Your task to perform on an android device: turn off location history Image 0: 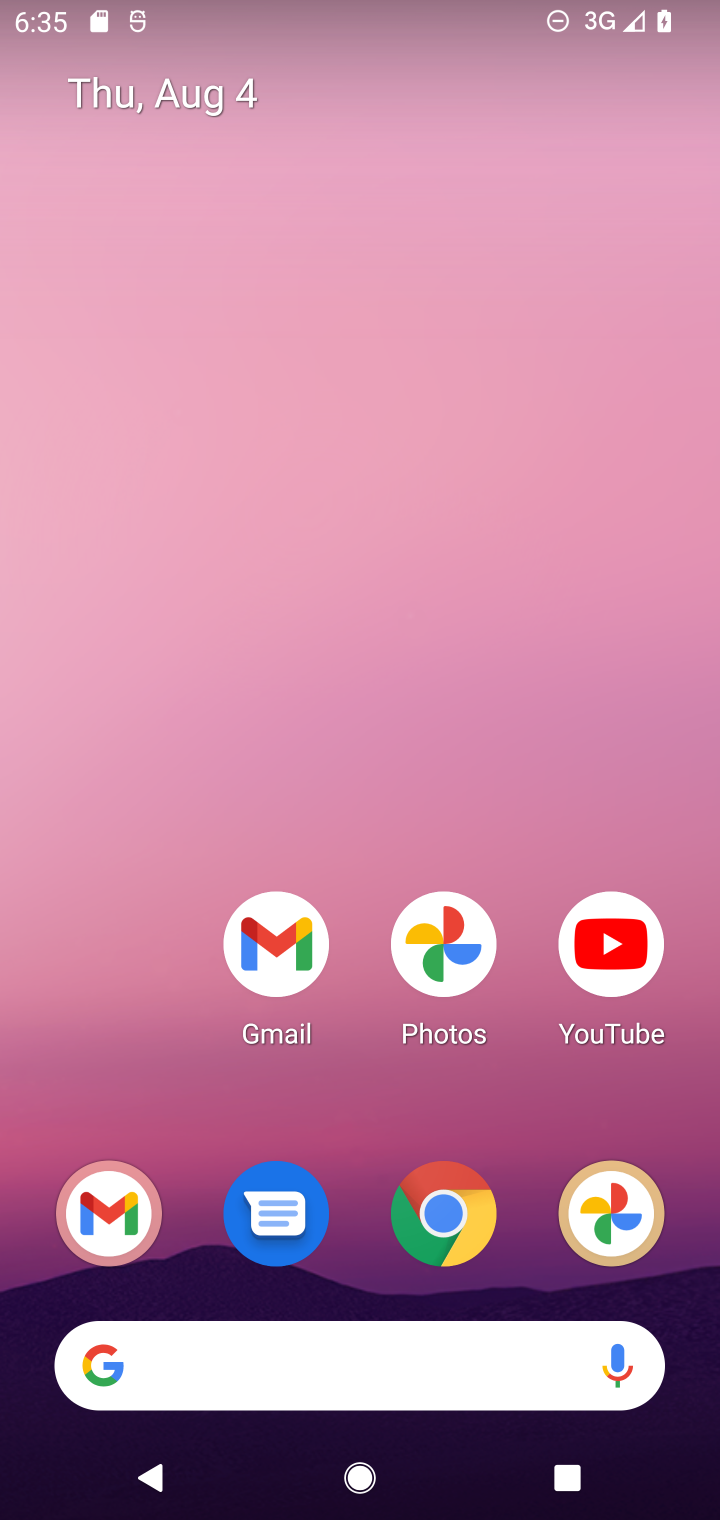
Step 0: press home button
Your task to perform on an android device: turn off location history Image 1: 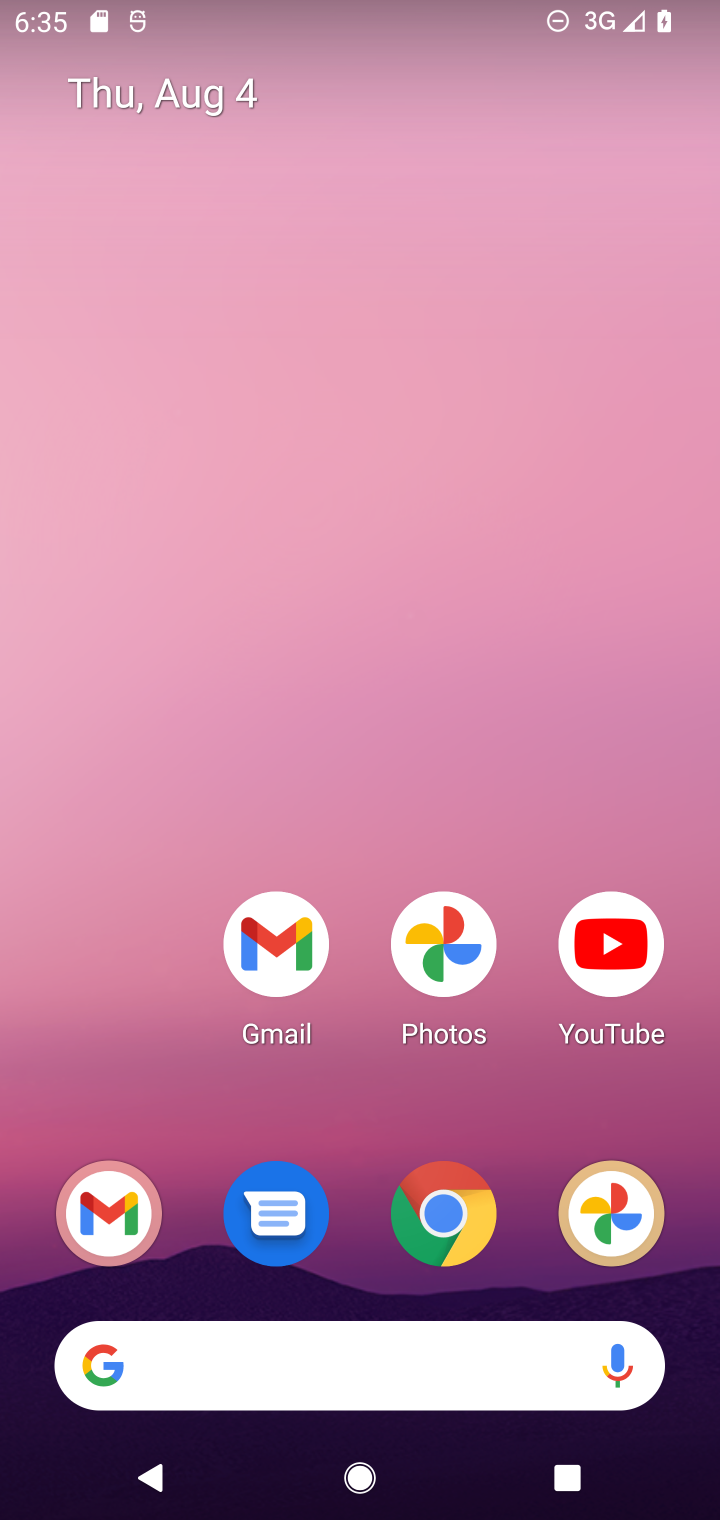
Step 1: drag from (171, 1123) to (123, 286)
Your task to perform on an android device: turn off location history Image 2: 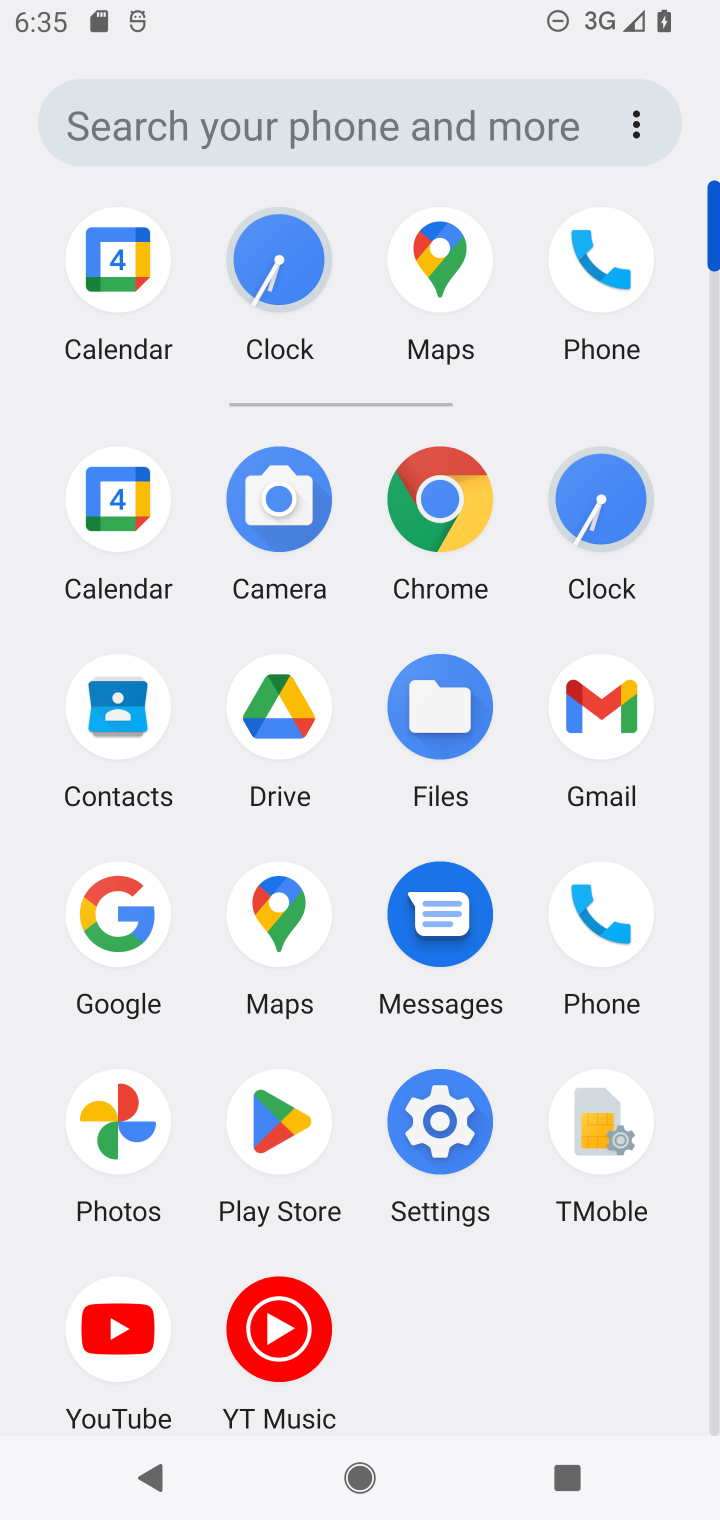
Step 2: click (441, 1125)
Your task to perform on an android device: turn off location history Image 3: 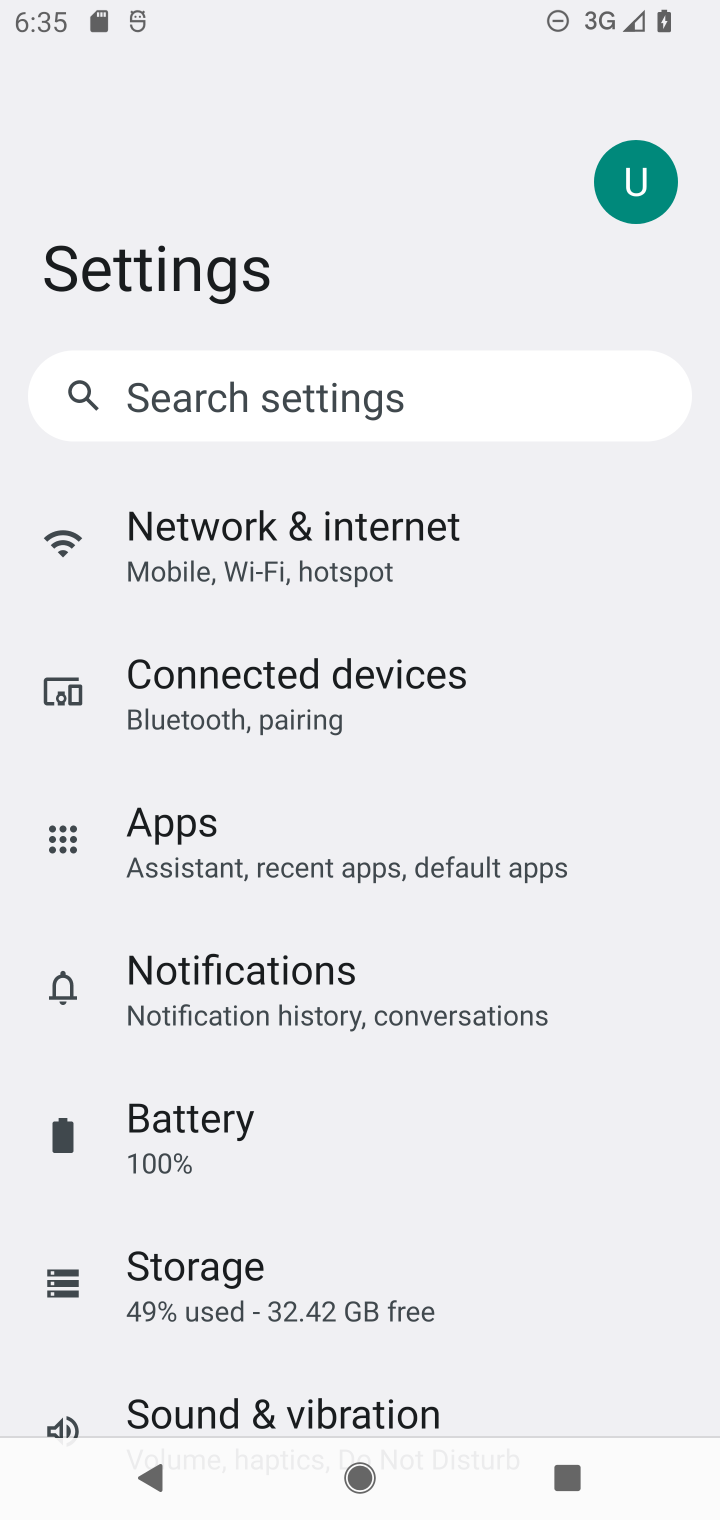
Step 3: drag from (591, 1201) to (605, 895)
Your task to perform on an android device: turn off location history Image 4: 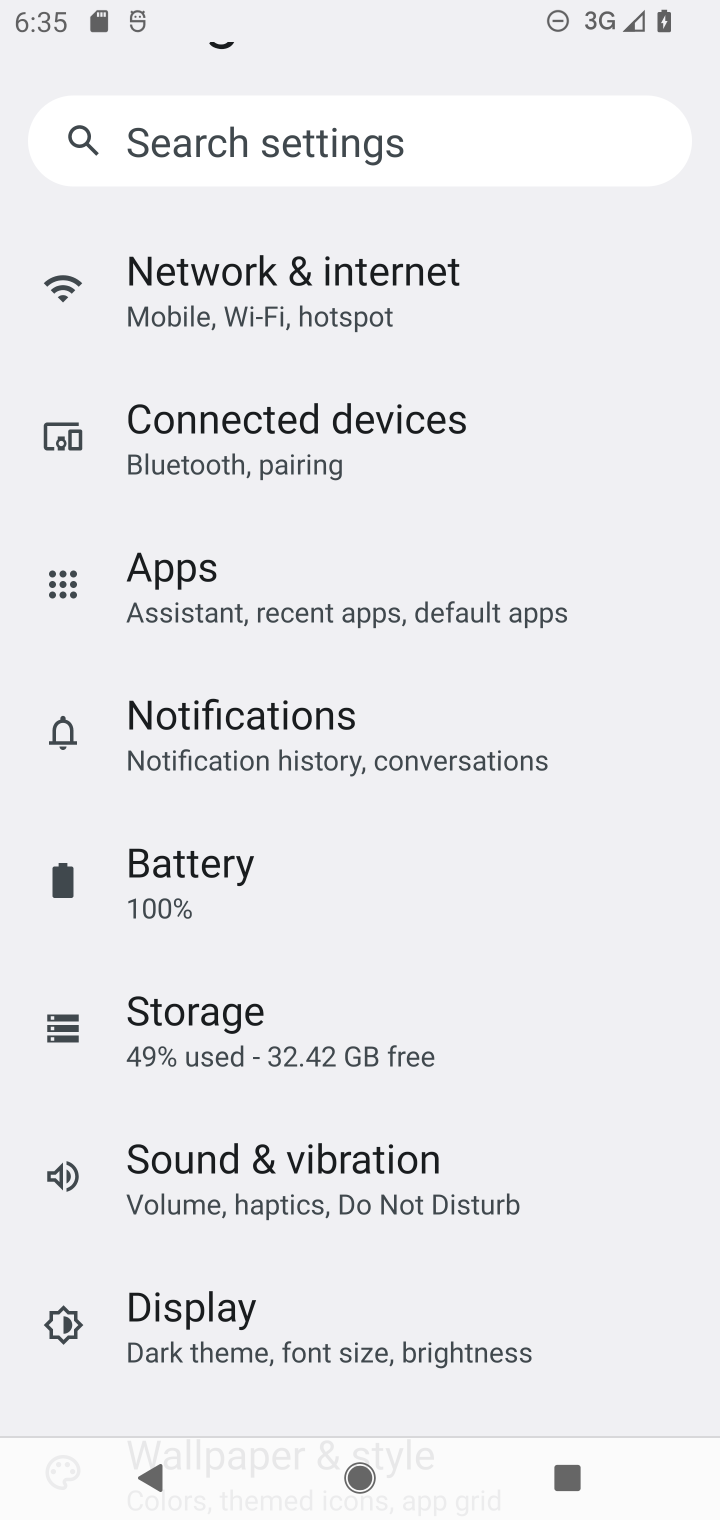
Step 4: drag from (596, 1247) to (594, 846)
Your task to perform on an android device: turn off location history Image 5: 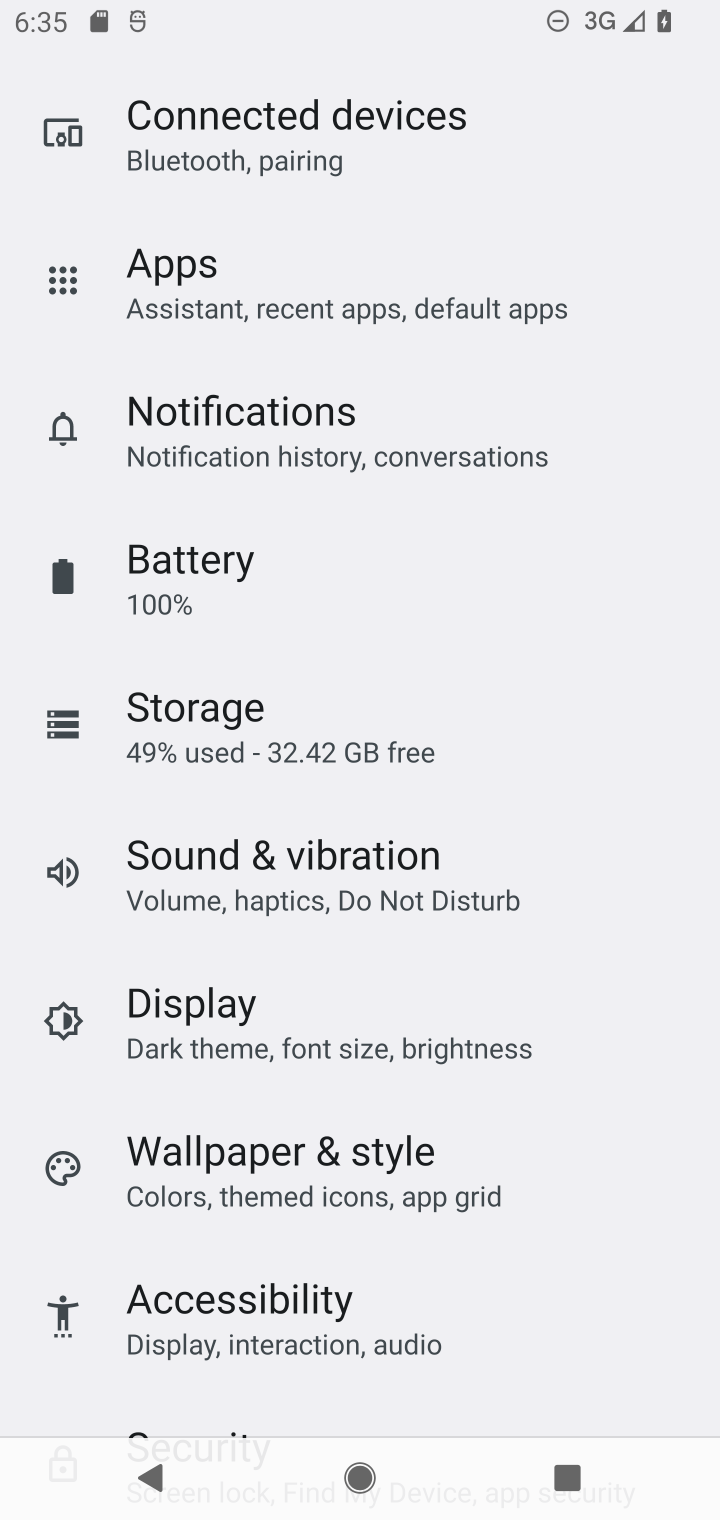
Step 5: drag from (610, 1316) to (604, 908)
Your task to perform on an android device: turn off location history Image 6: 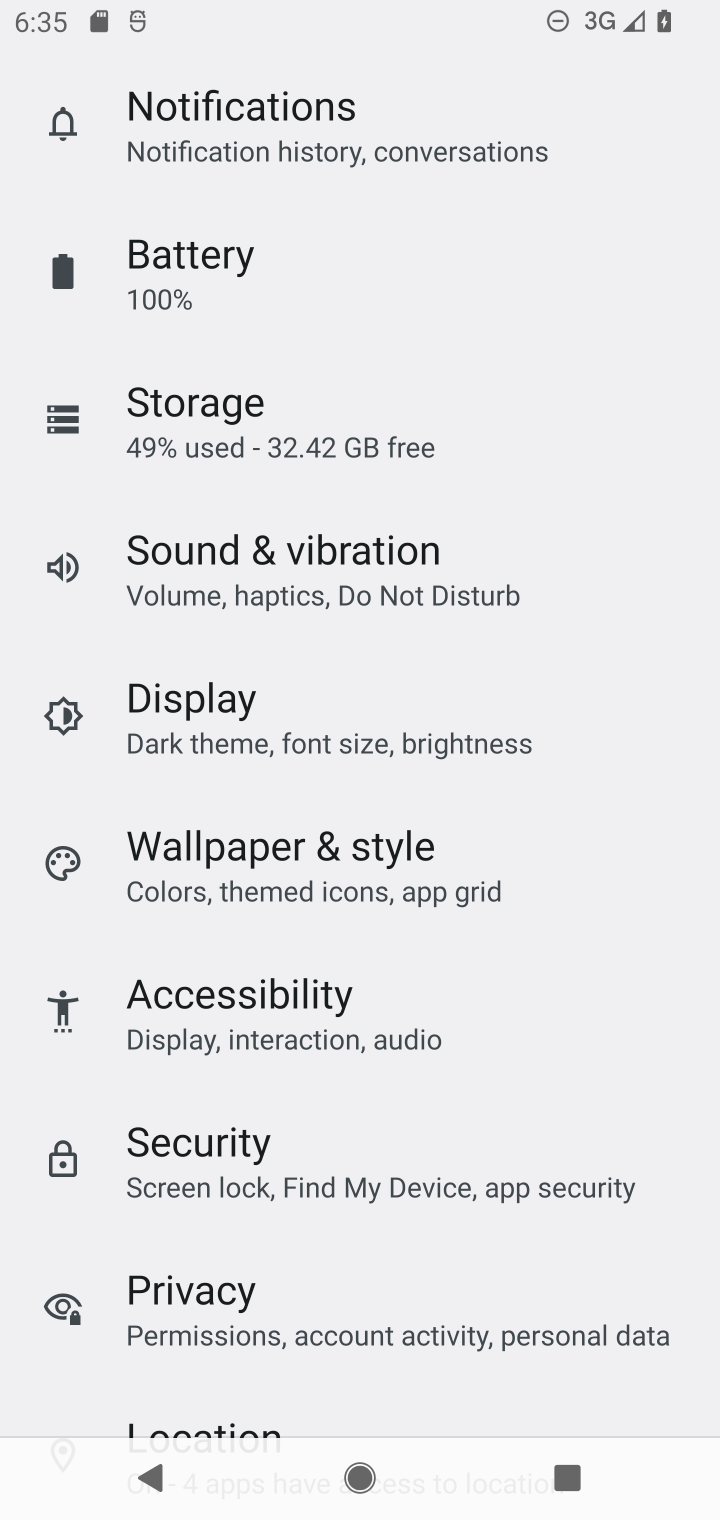
Step 6: drag from (575, 1288) to (577, 949)
Your task to perform on an android device: turn off location history Image 7: 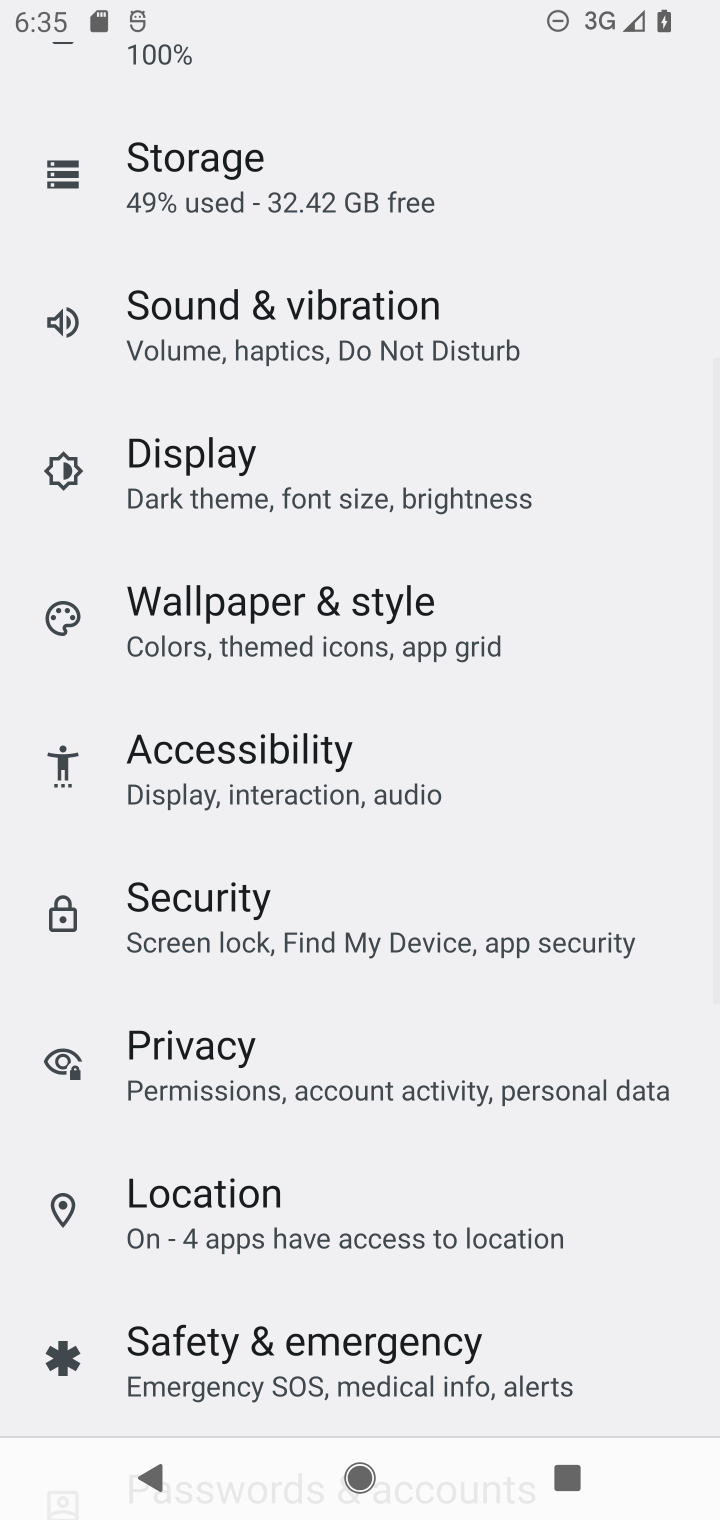
Step 7: drag from (615, 1316) to (613, 968)
Your task to perform on an android device: turn off location history Image 8: 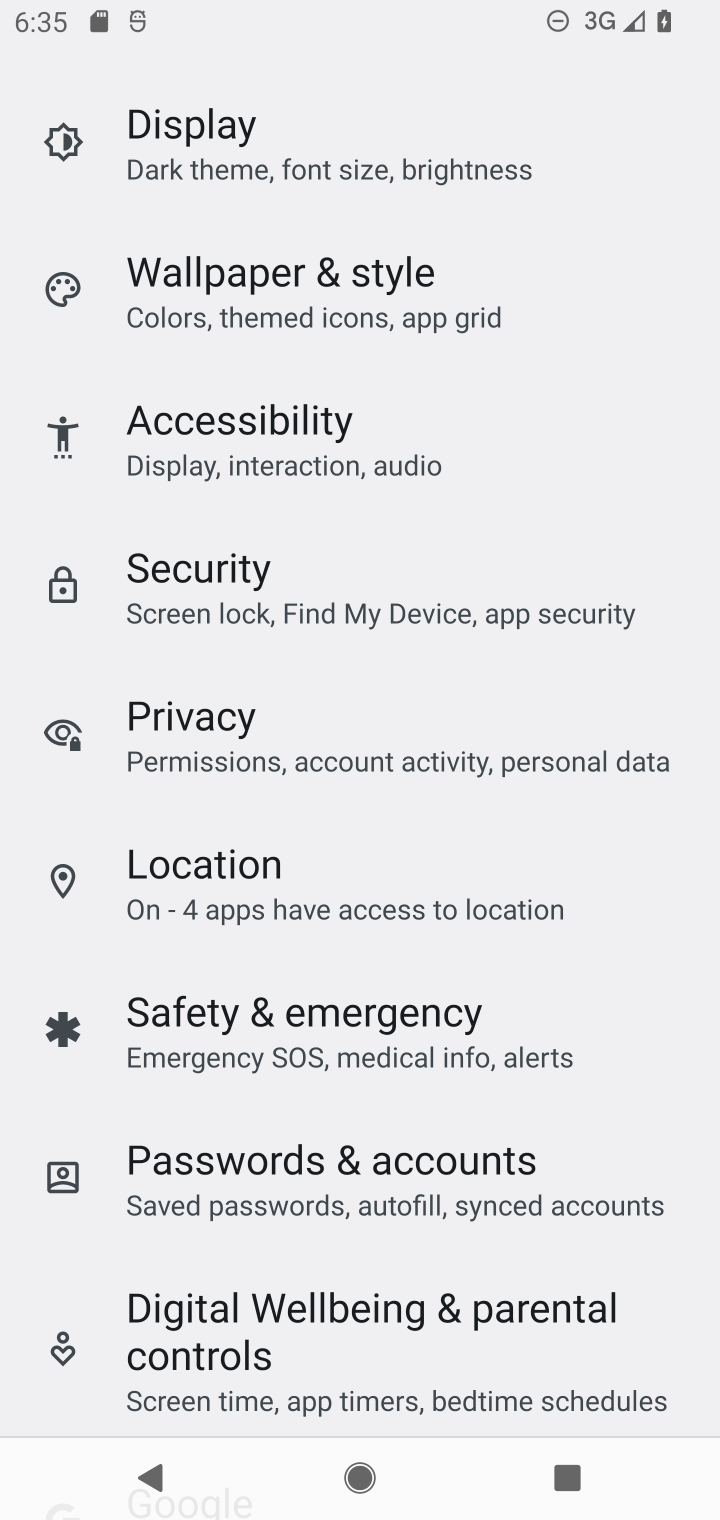
Step 8: drag from (613, 1313) to (598, 936)
Your task to perform on an android device: turn off location history Image 9: 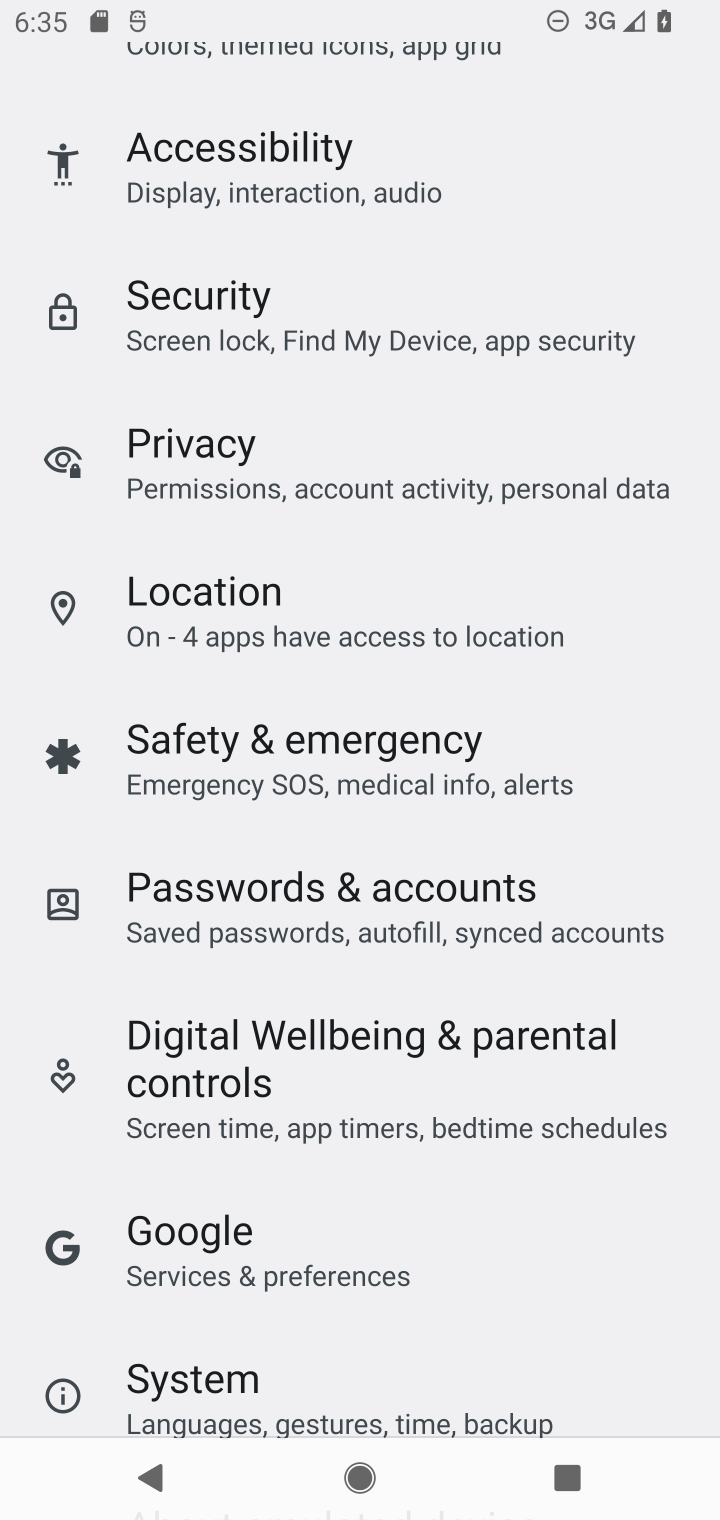
Step 9: drag from (576, 1316) to (574, 802)
Your task to perform on an android device: turn off location history Image 10: 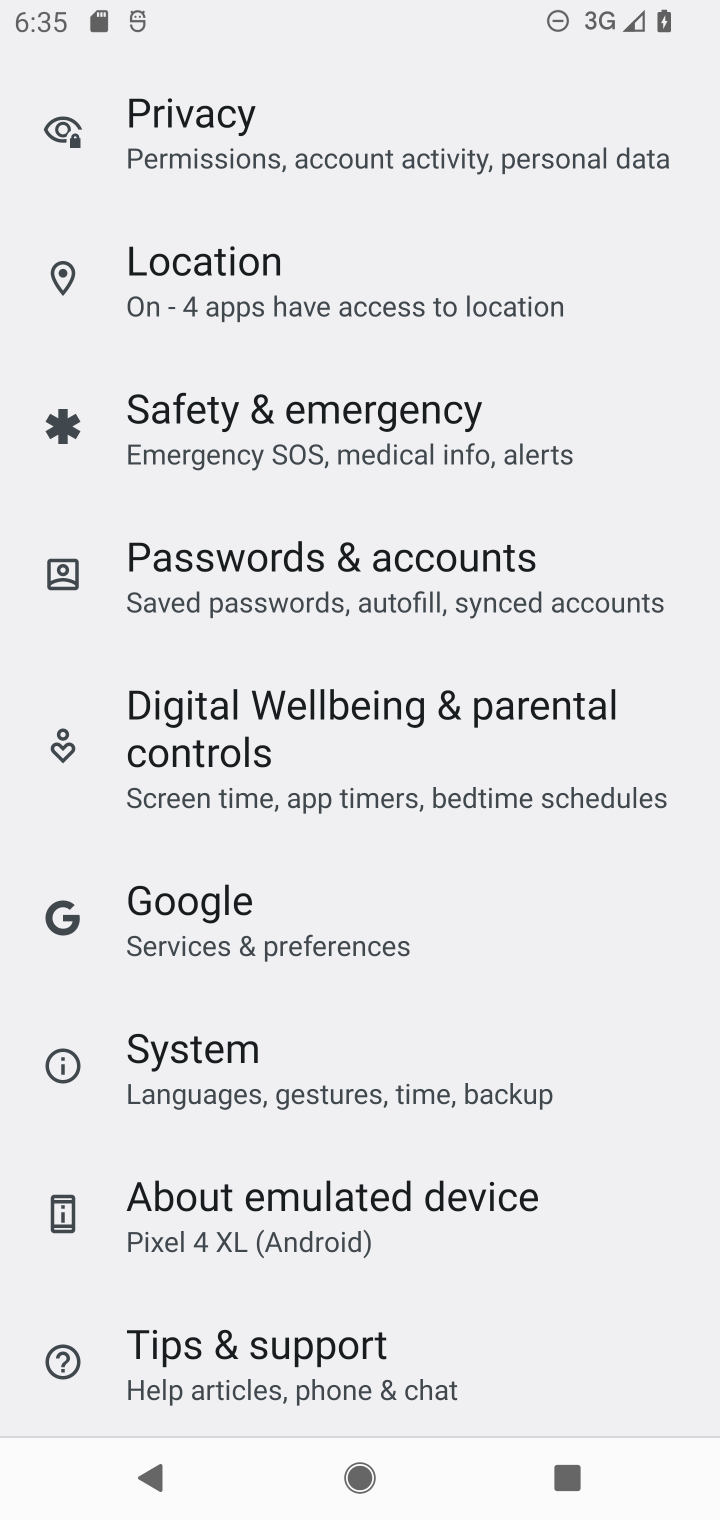
Step 10: drag from (585, 1296) to (560, 878)
Your task to perform on an android device: turn off location history Image 11: 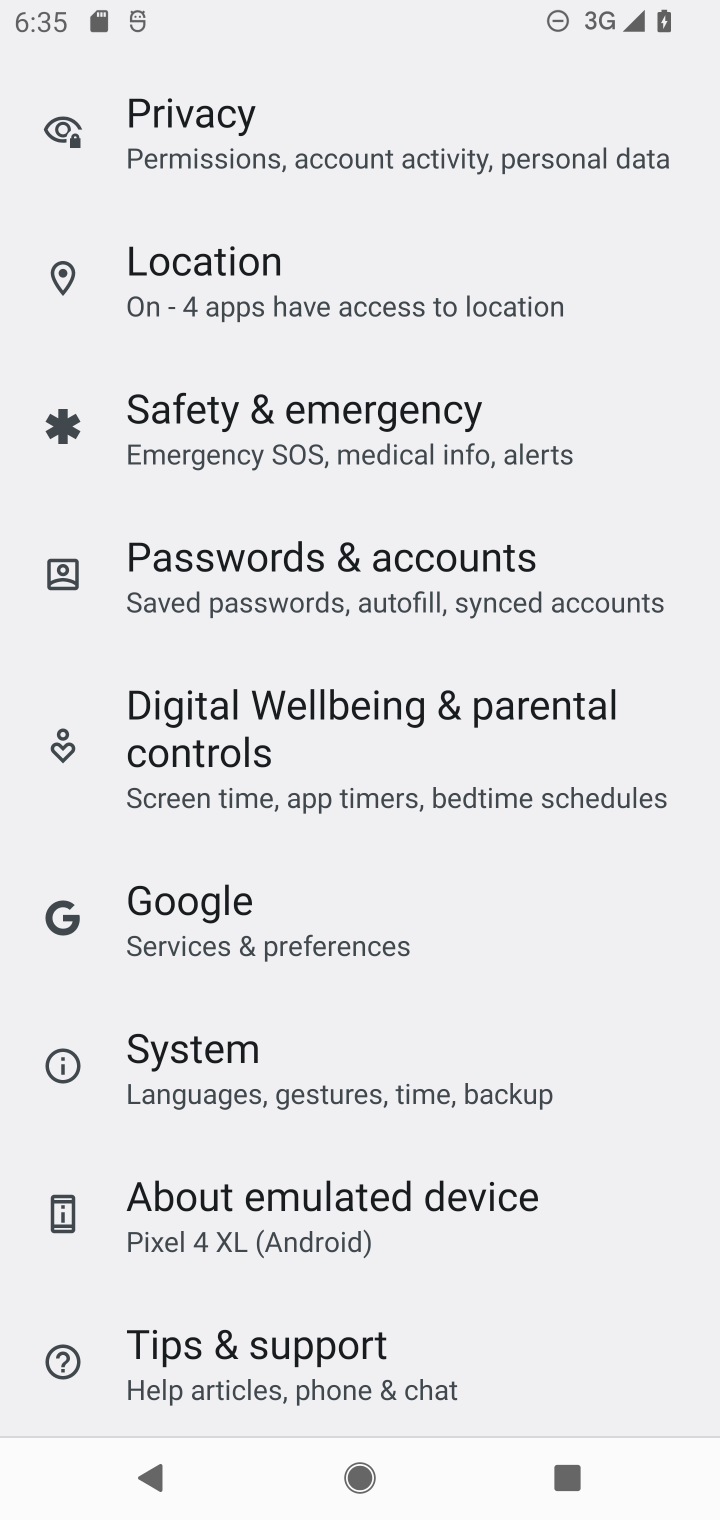
Step 11: drag from (560, 878) to (580, 1133)
Your task to perform on an android device: turn off location history Image 12: 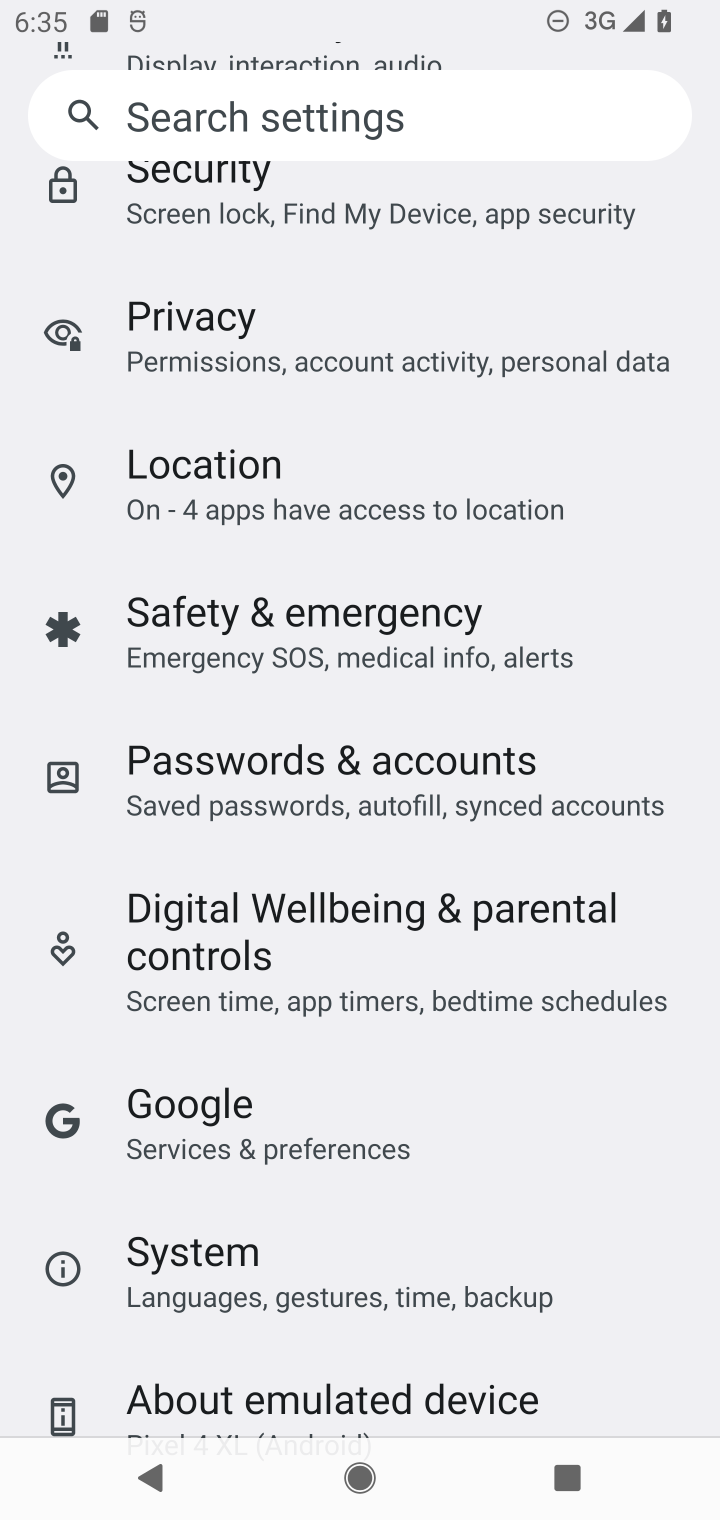
Step 12: drag from (647, 523) to (608, 898)
Your task to perform on an android device: turn off location history Image 13: 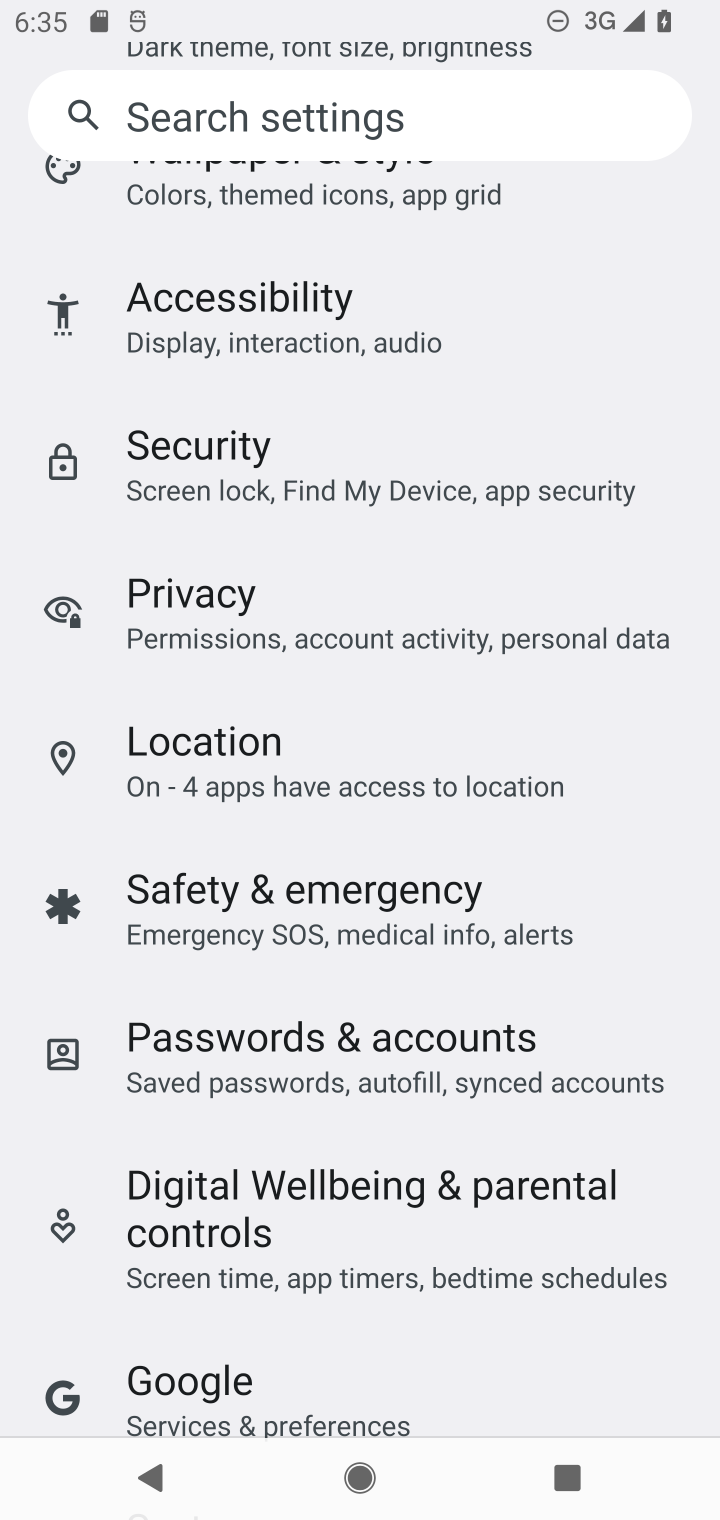
Step 13: click (364, 763)
Your task to perform on an android device: turn off location history Image 14: 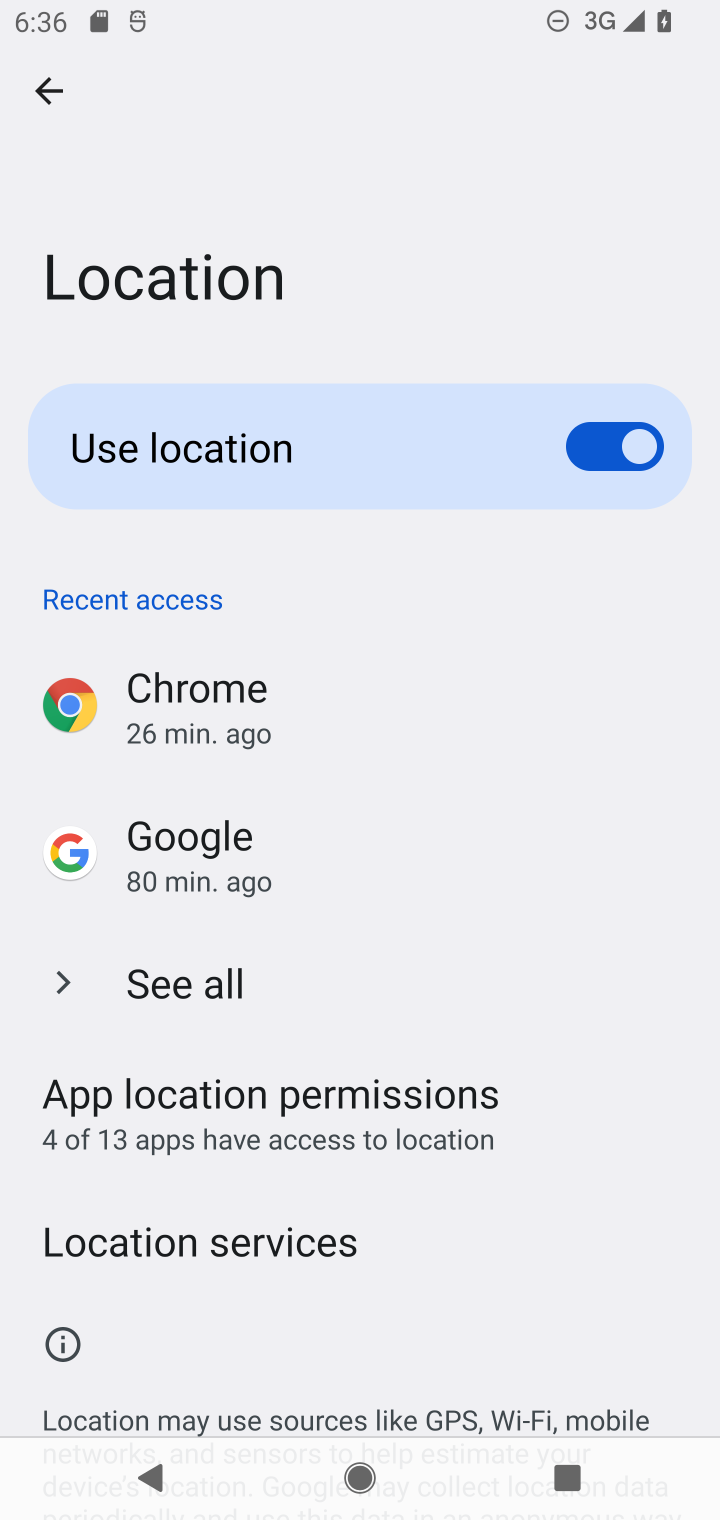
Step 14: drag from (548, 1217) to (555, 883)
Your task to perform on an android device: turn off location history Image 15: 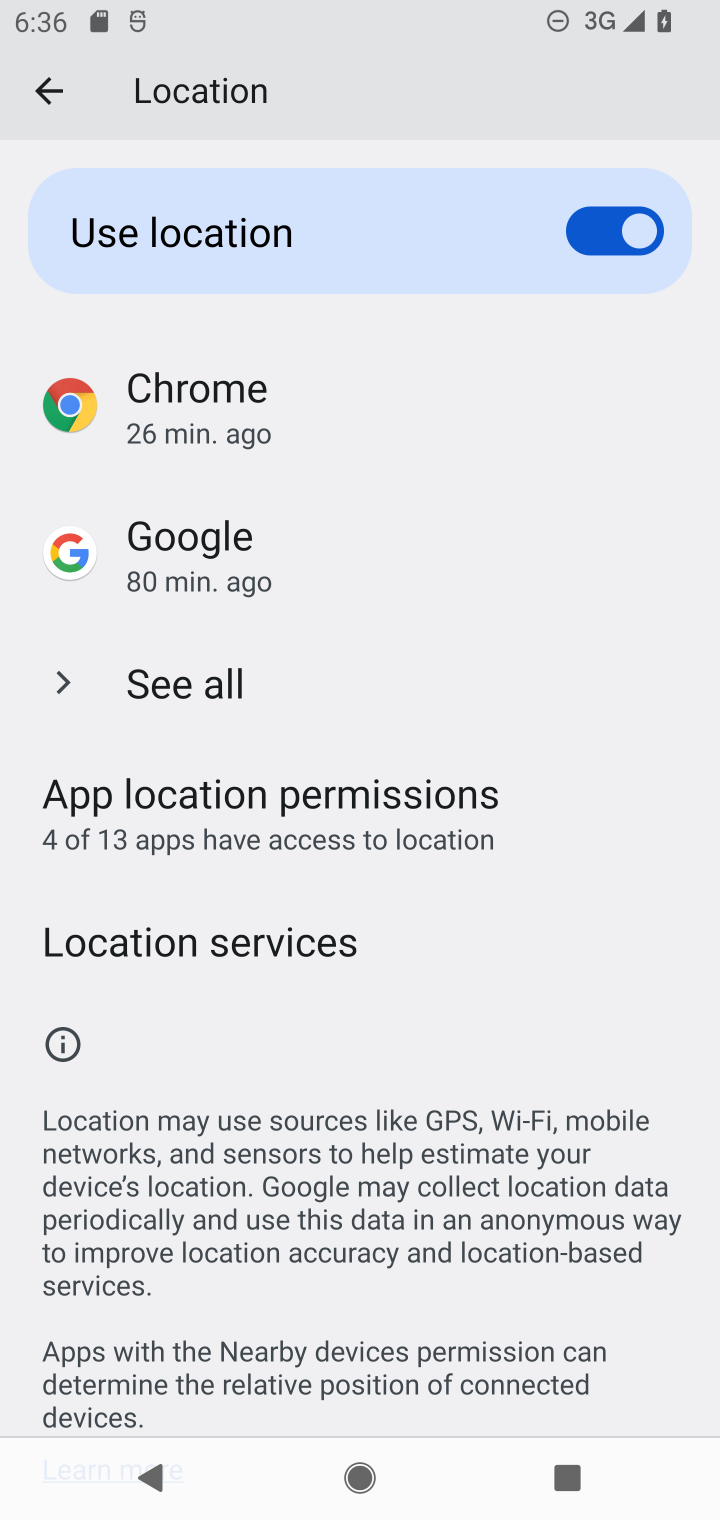
Step 15: click (323, 935)
Your task to perform on an android device: turn off location history Image 16: 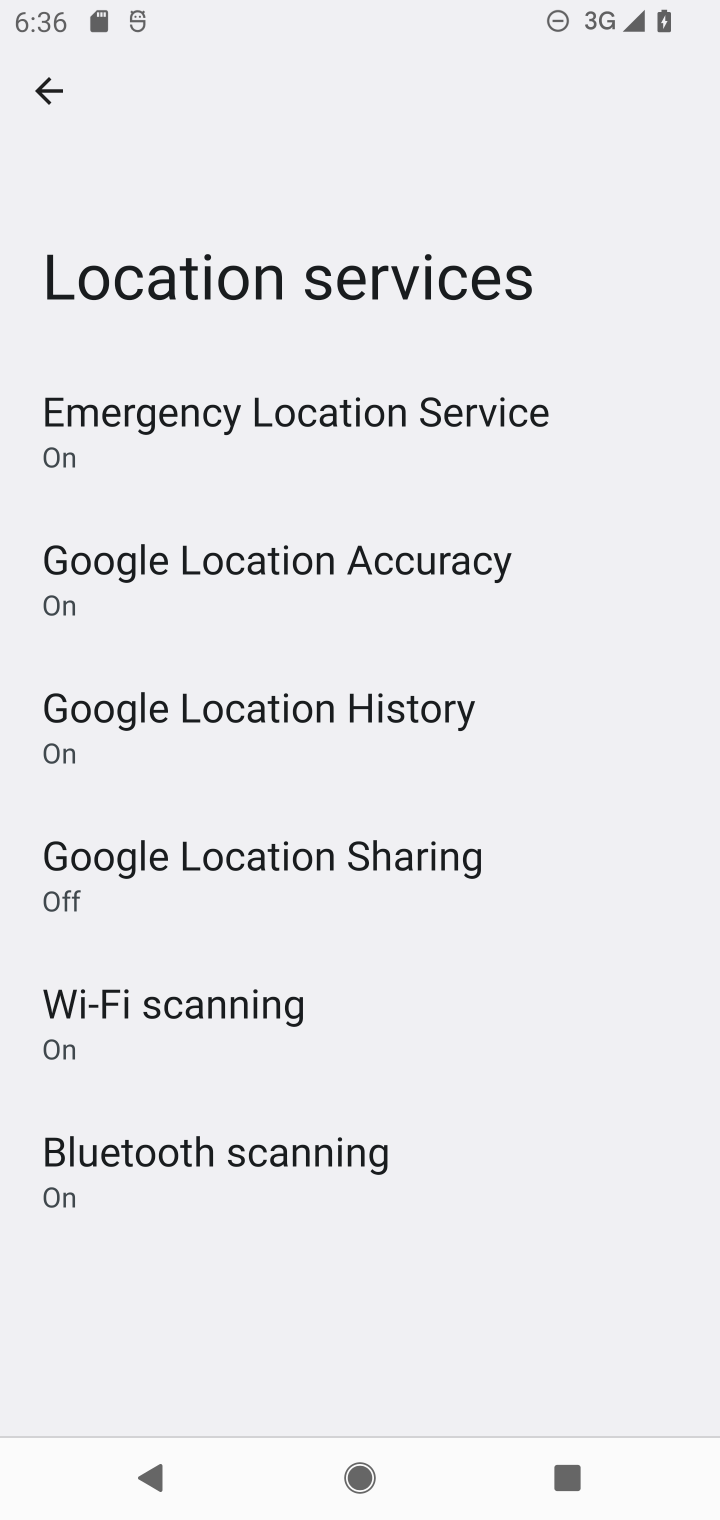
Step 16: click (285, 734)
Your task to perform on an android device: turn off location history Image 17: 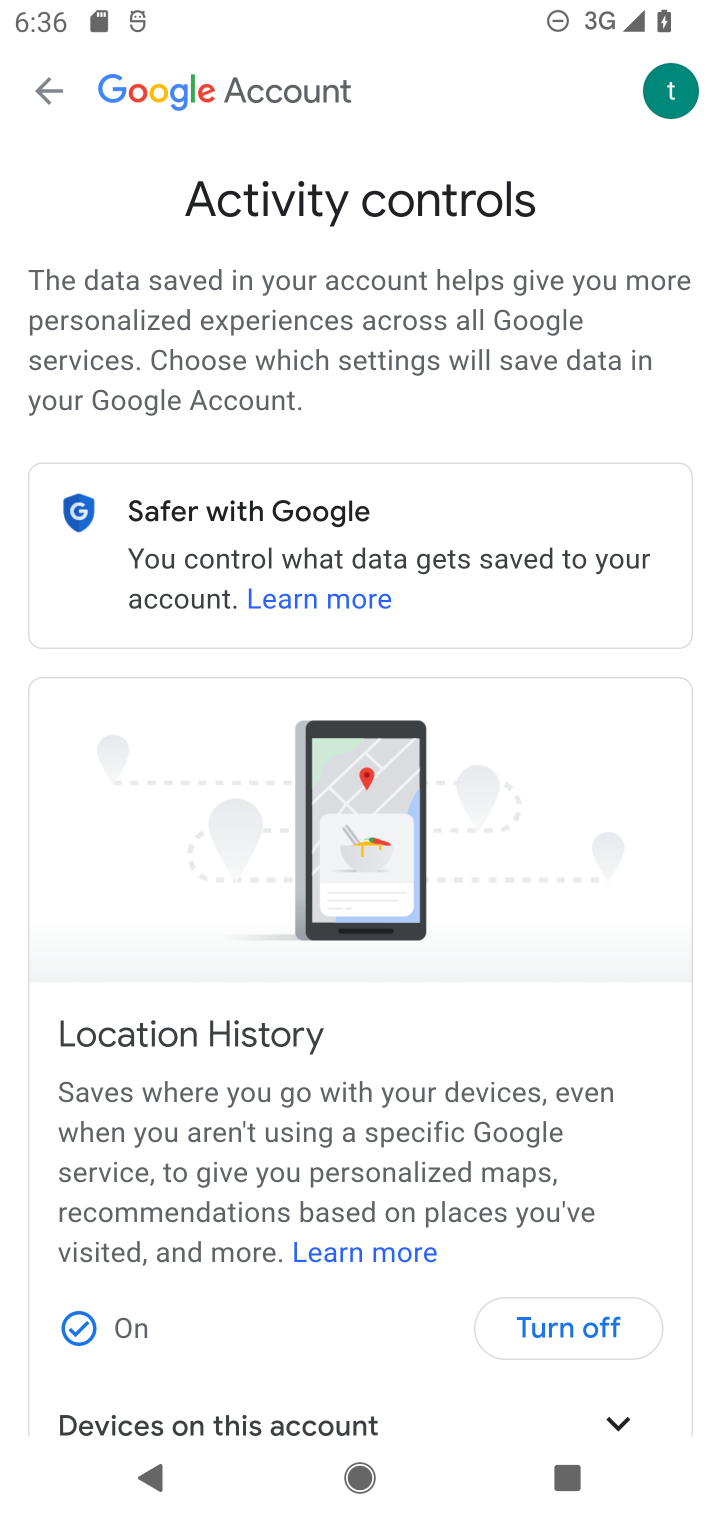
Step 17: click (578, 1308)
Your task to perform on an android device: turn off location history Image 18: 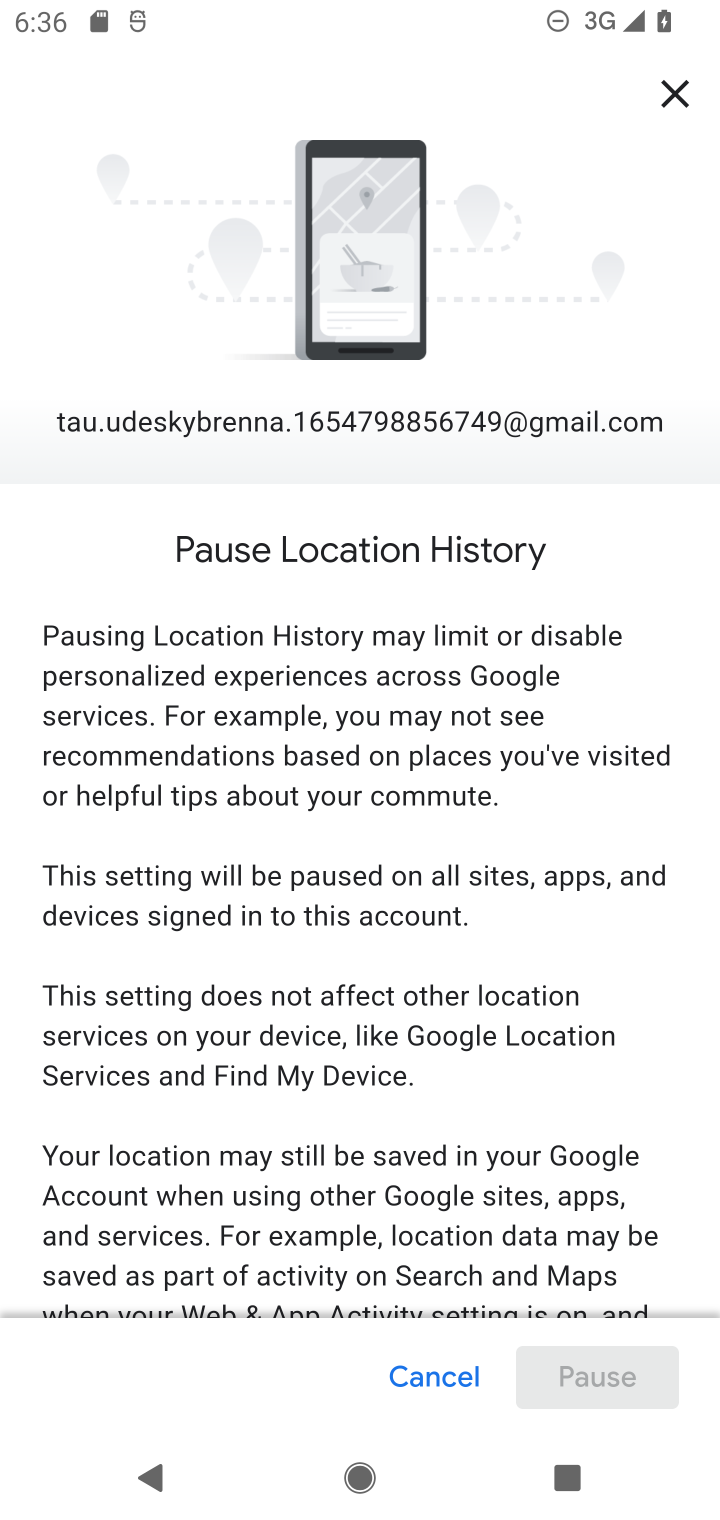
Step 18: drag from (423, 1140) to (427, 734)
Your task to perform on an android device: turn off location history Image 19: 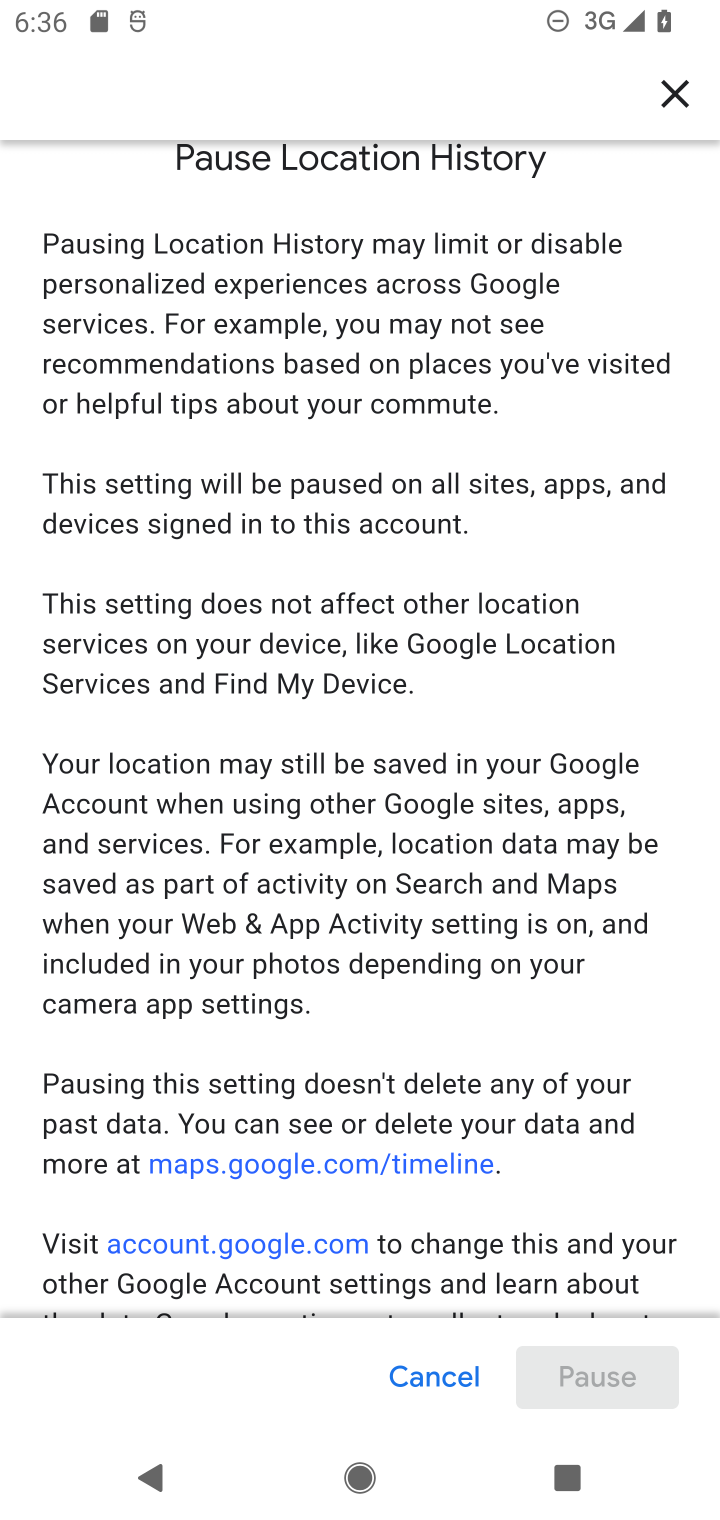
Step 19: drag from (340, 1126) to (359, 741)
Your task to perform on an android device: turn off location history Image 20: 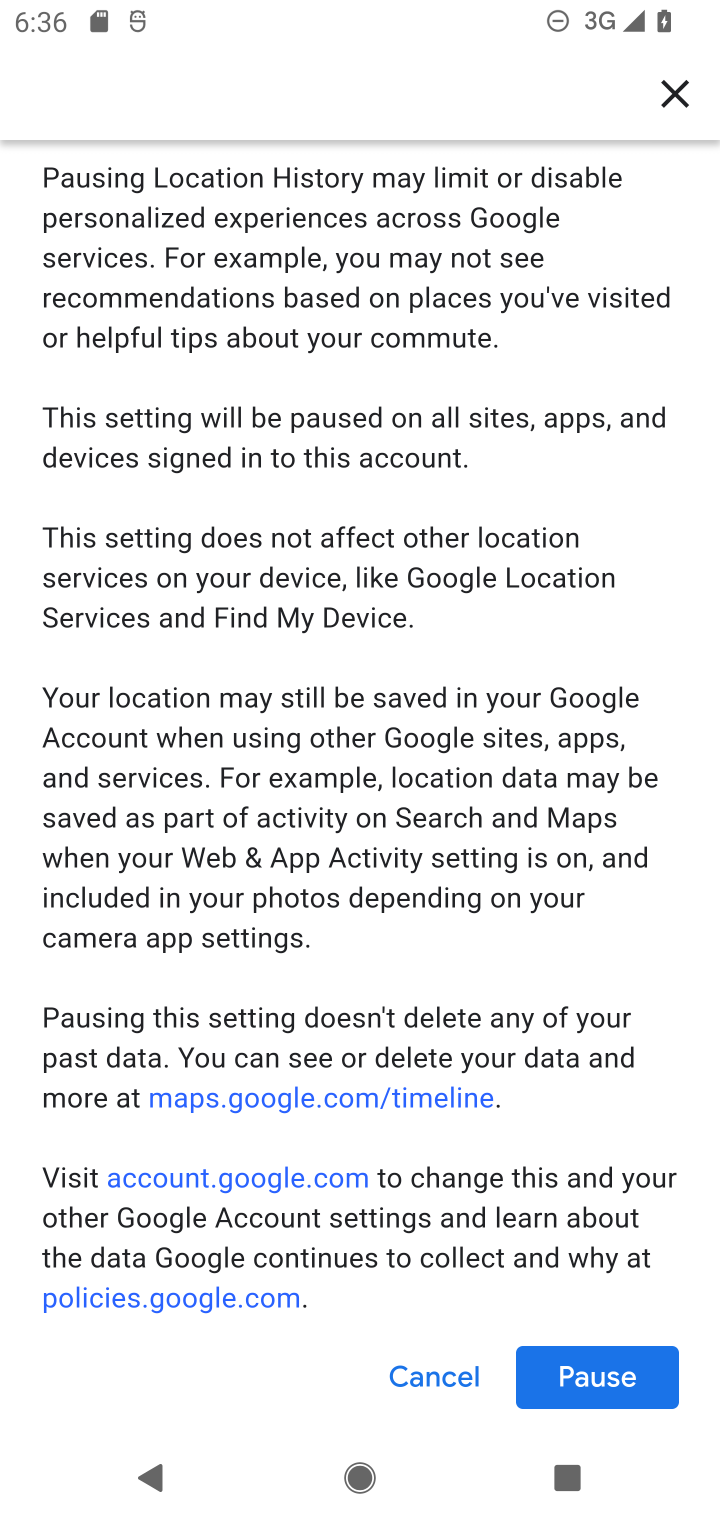
Step 20: click (563, 1355)
Your task to perform on an android device: turn off location history Image 21: 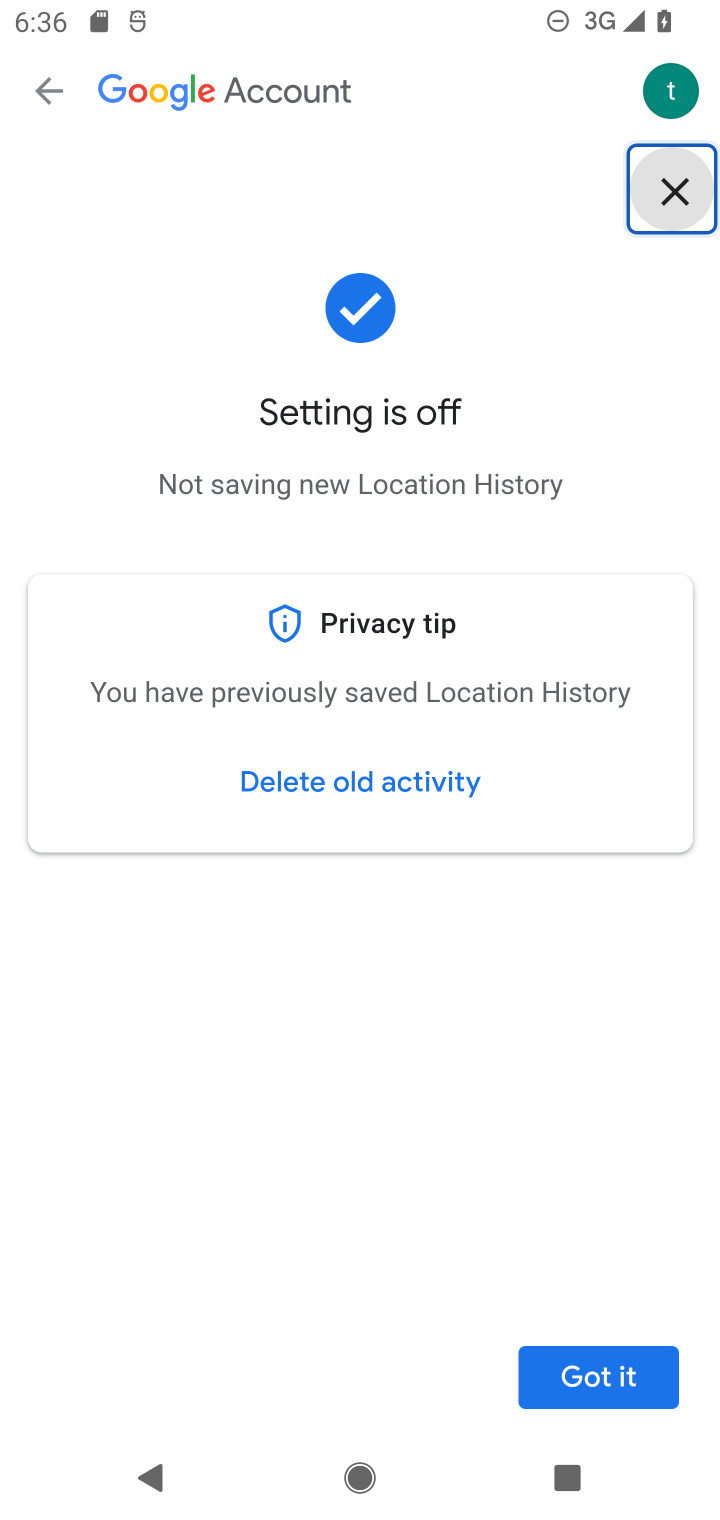
Step 21: task complete